Your task to perform on an android device: How much does a 3 bedroom apartment rent for in Austin? Image 0: 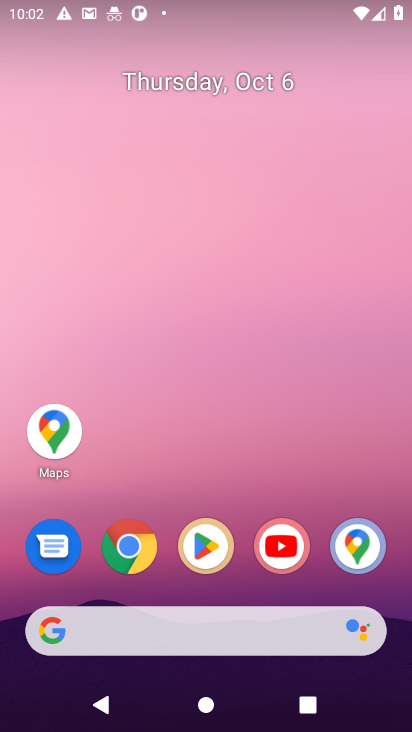
Step 0: click (128, 550)
Your task to perform on an android device: How much does a 3 bedroom apartment rent for in Austin? Image 1: 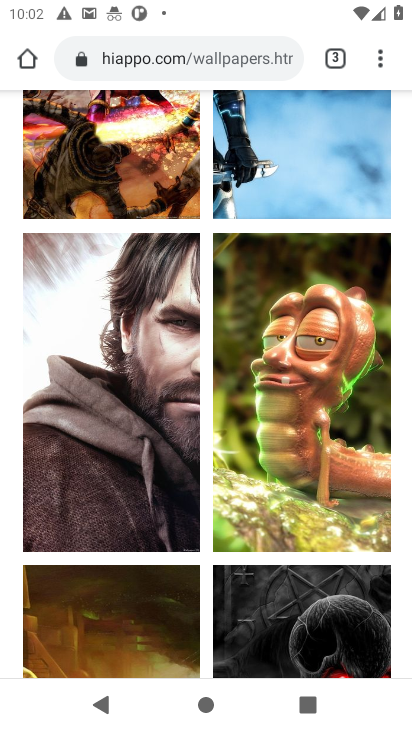
Step 1: click (137, 43)
Your task to perform on an android device: How much does a 3 bedroom apartment rent for in Austin? Image 2: 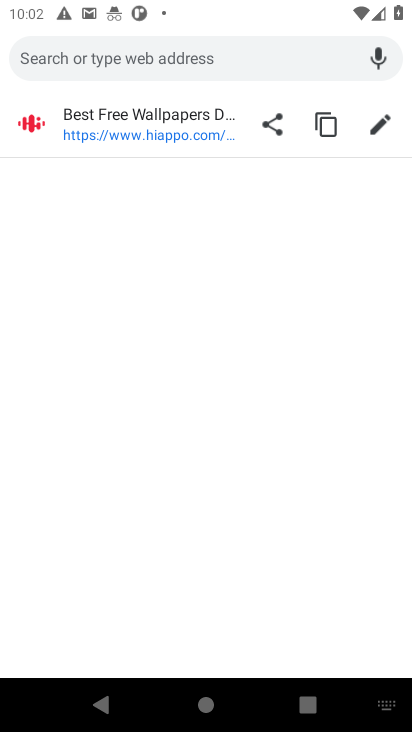
Step 2: type "How much does a 3 bedroom apartment rent for in Austin?"
Your task to perform on an android device: How much does a 3 bedroom apartment rent for in Austin? Image 3: 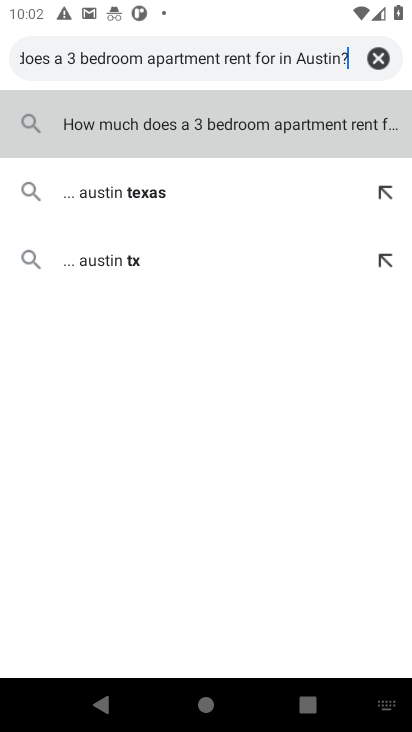
Step 3: click (179, 133)
Your task to perform on an android device: How much does a 3 bedroom apartment rent for in Austin? Image 4: 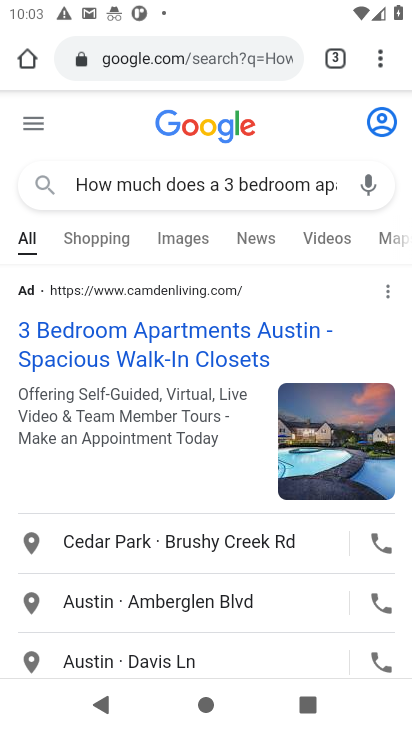
Step 4: click (95, 339)
Your task to perform on an android device: How much does a 3 bedroom apartment rent for in Austin? Image 5: 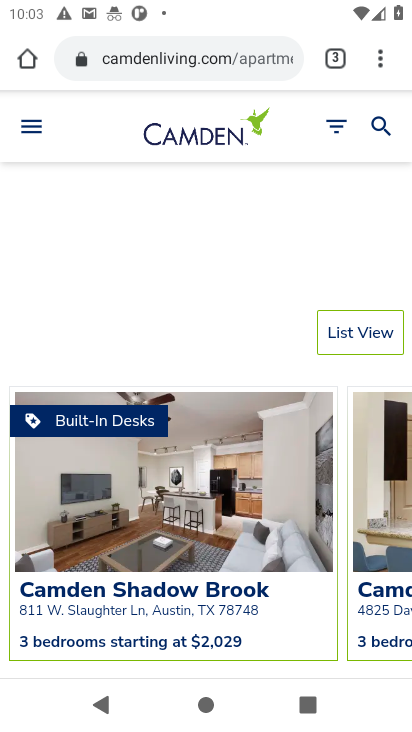
Step 5: task complete